Your task to perform on an android device: check the backup settings in the google photos Image 0: 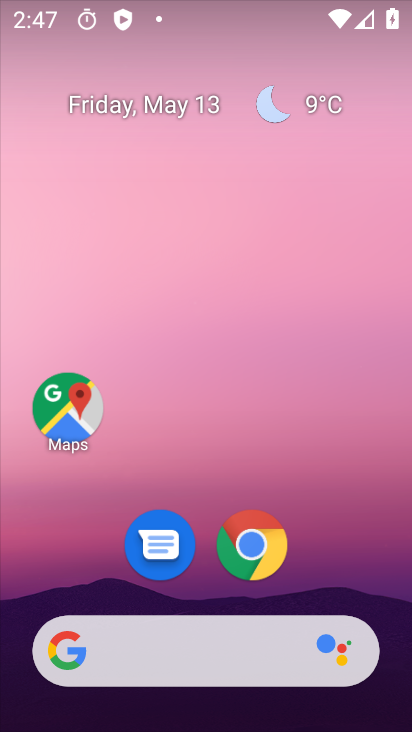
Step 0: drag from (349, 469) to (345, 160)
Your task to perform on an android device: check the backup settings in the google photos Image 1: 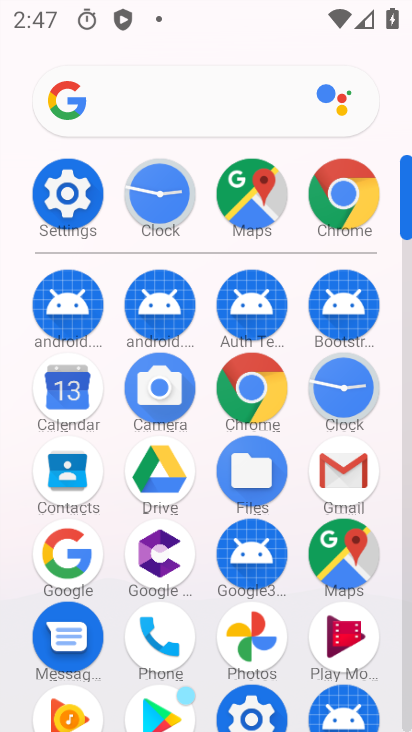
Step 1: click (244, 629)
Your task to perform on an android device: check the backup settings in the google photos Image 2: 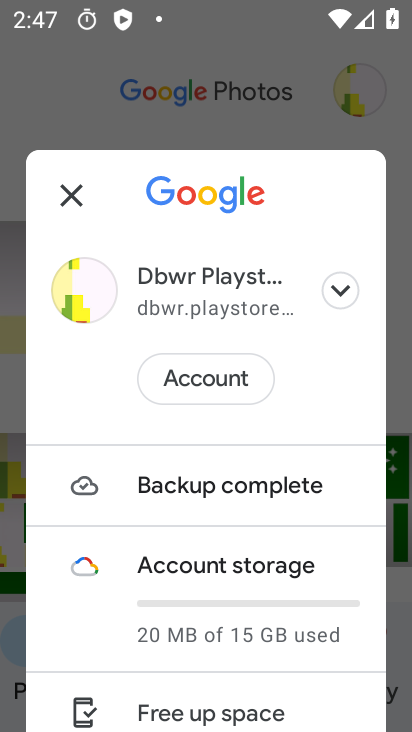
Step 2: click (274, 479)
Your task to perform on an android device: check the backup settings in the google photos Image 3: 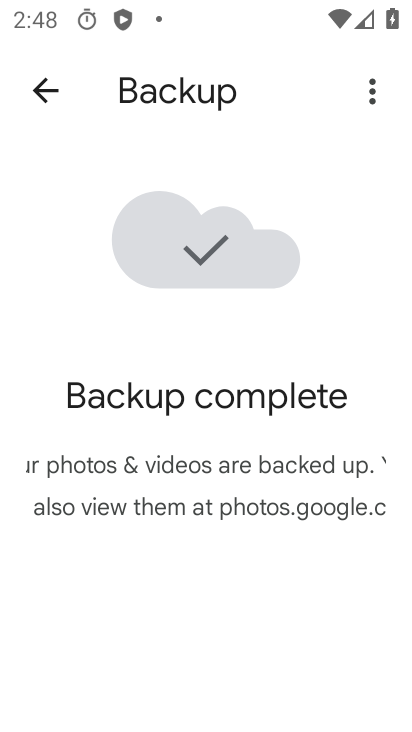
Step 3: task complete